Your task to perform on an android device: Show me popular games on the Play Store Image 0: 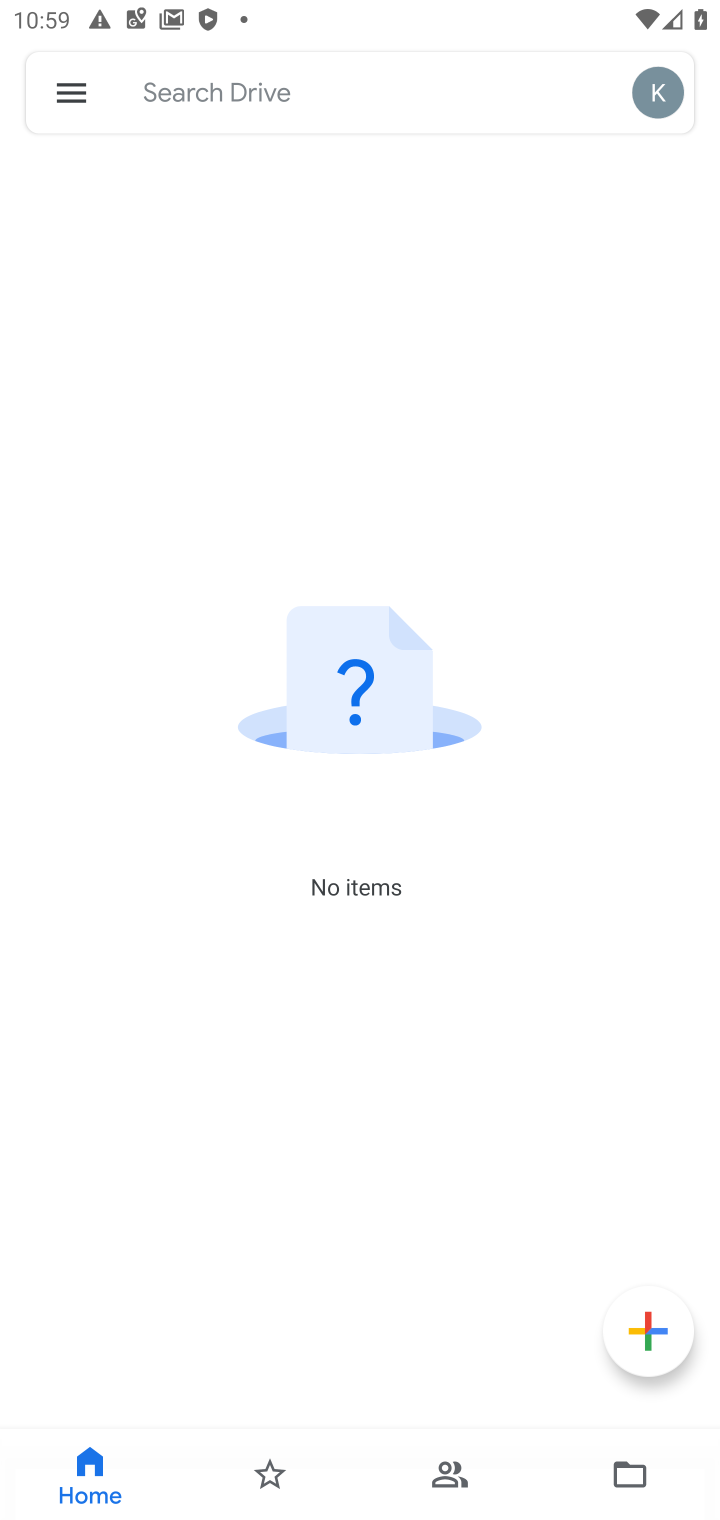
Step 0: press home button
Your task to perform on an android device: Show me popular games on the Play Store Image 1: 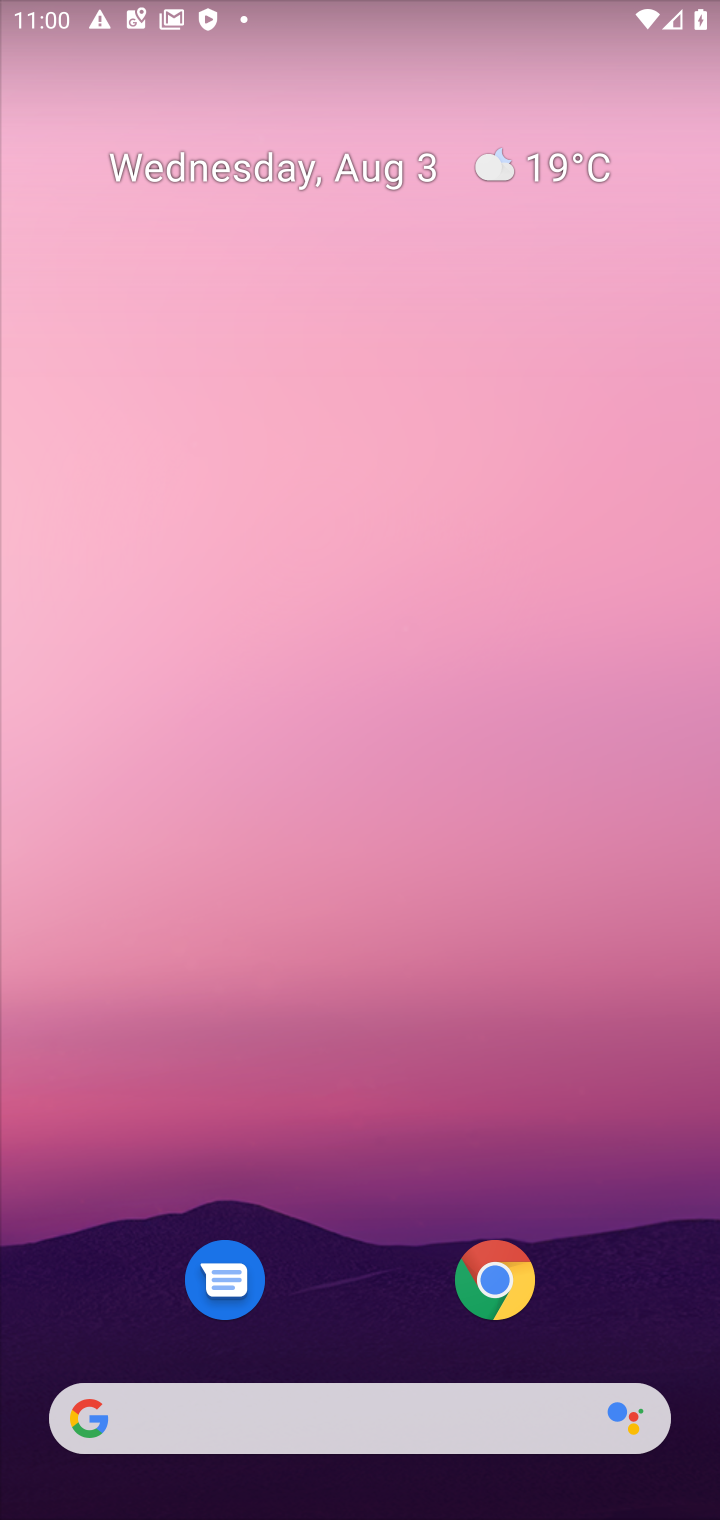
Step 1: drag from (345, 1155) to (384, 52)
Your task to perform on an android device: Show me popular games on the Play Store Image 2: 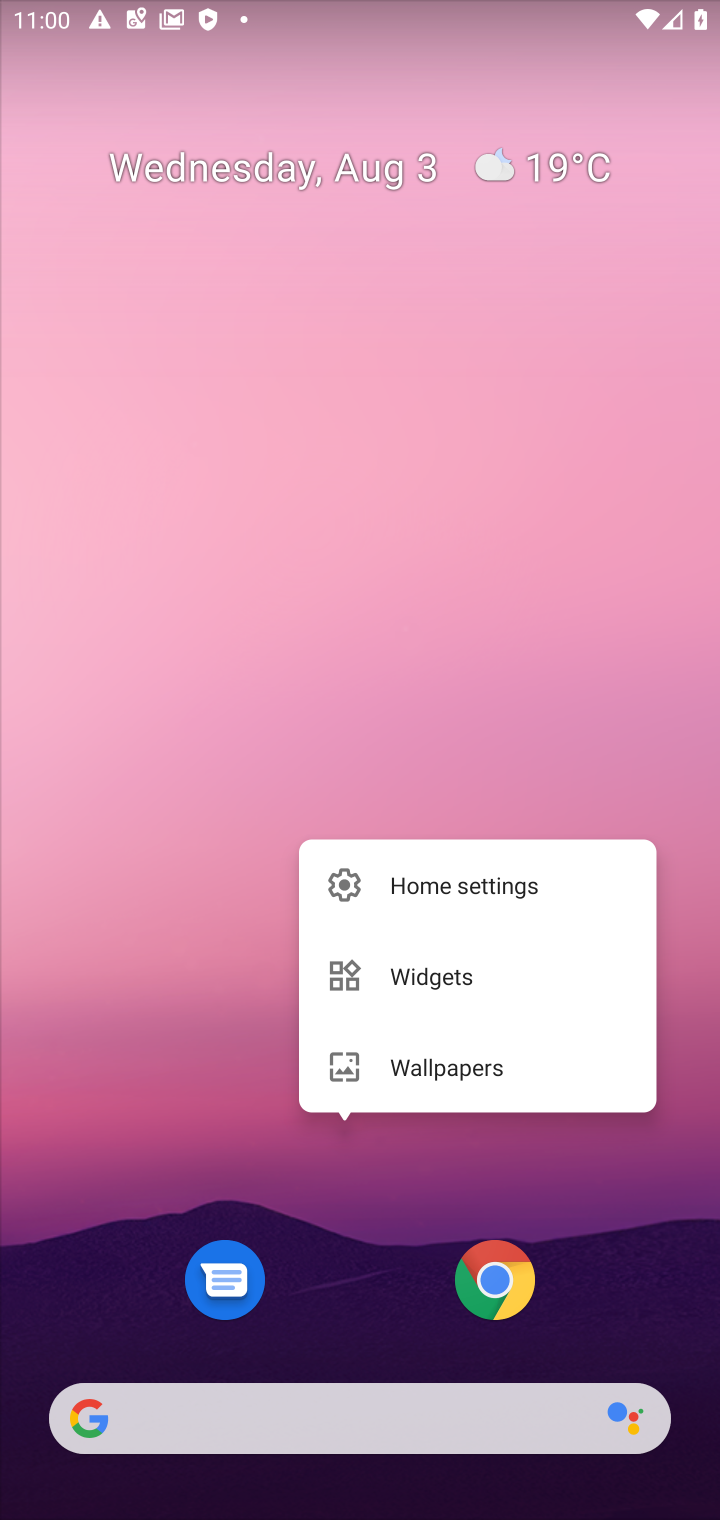
Step 2: click (229, 450)
Your task to perform on an android device: Show me popular games on the Play Store Image 3: 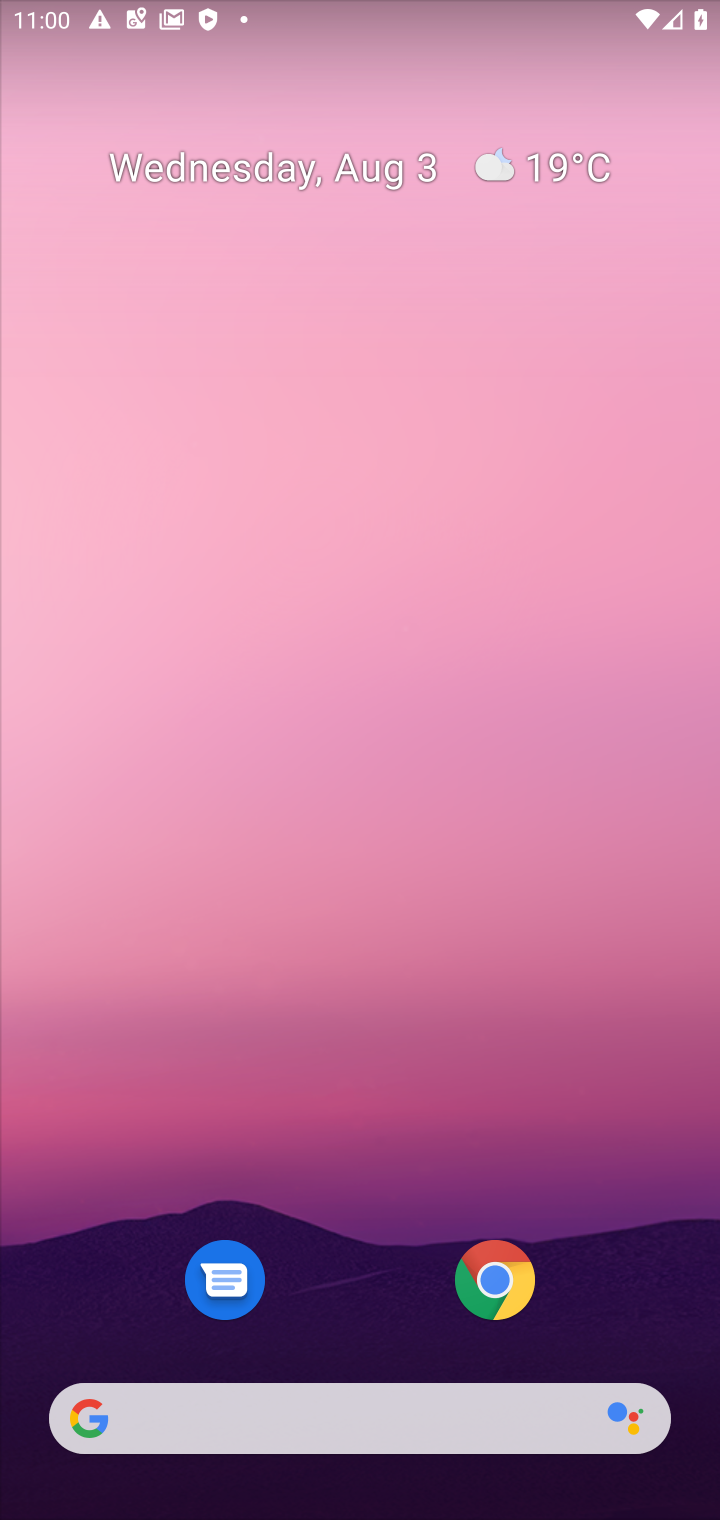
Step 3: drag from (376, 1181) to (416, 292)
Your task to perform on an android device: Show me popular games on the Play Store Image 4: 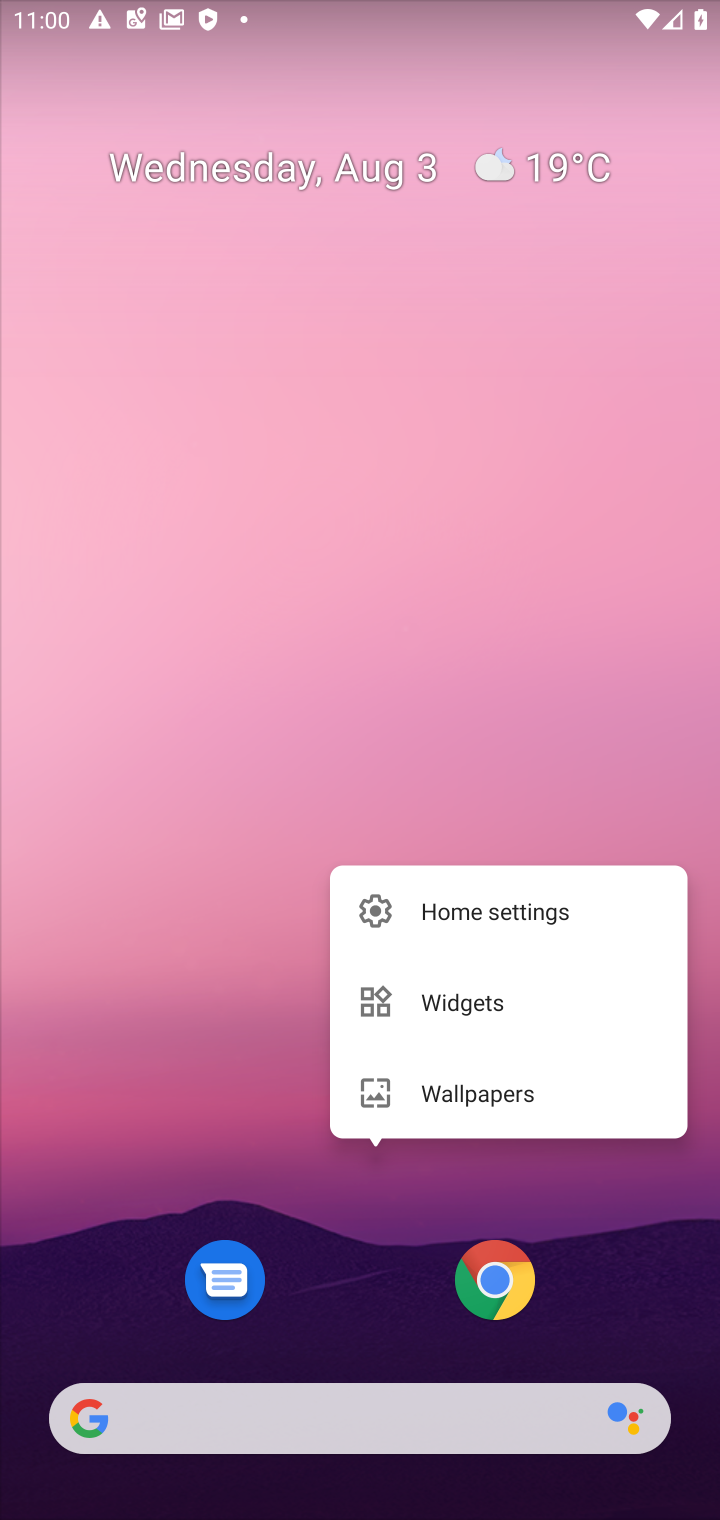
Step 4: click (387, 569)
Your task to perform on an android device: Show me popular games on the Play Store Image 5: 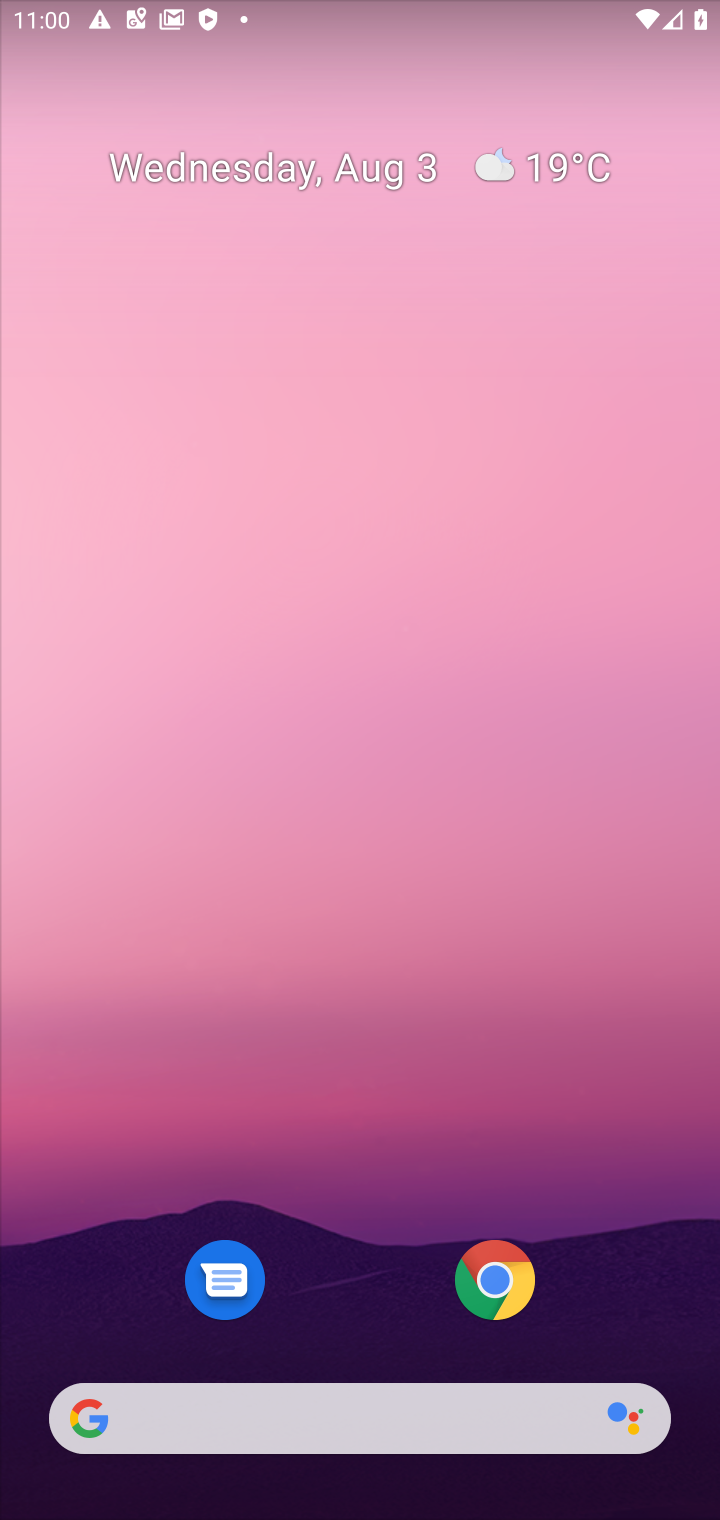
Step 5: click (387, 569)
Your task to perform on an android device: Show me popular games on the Play Store Image 6: 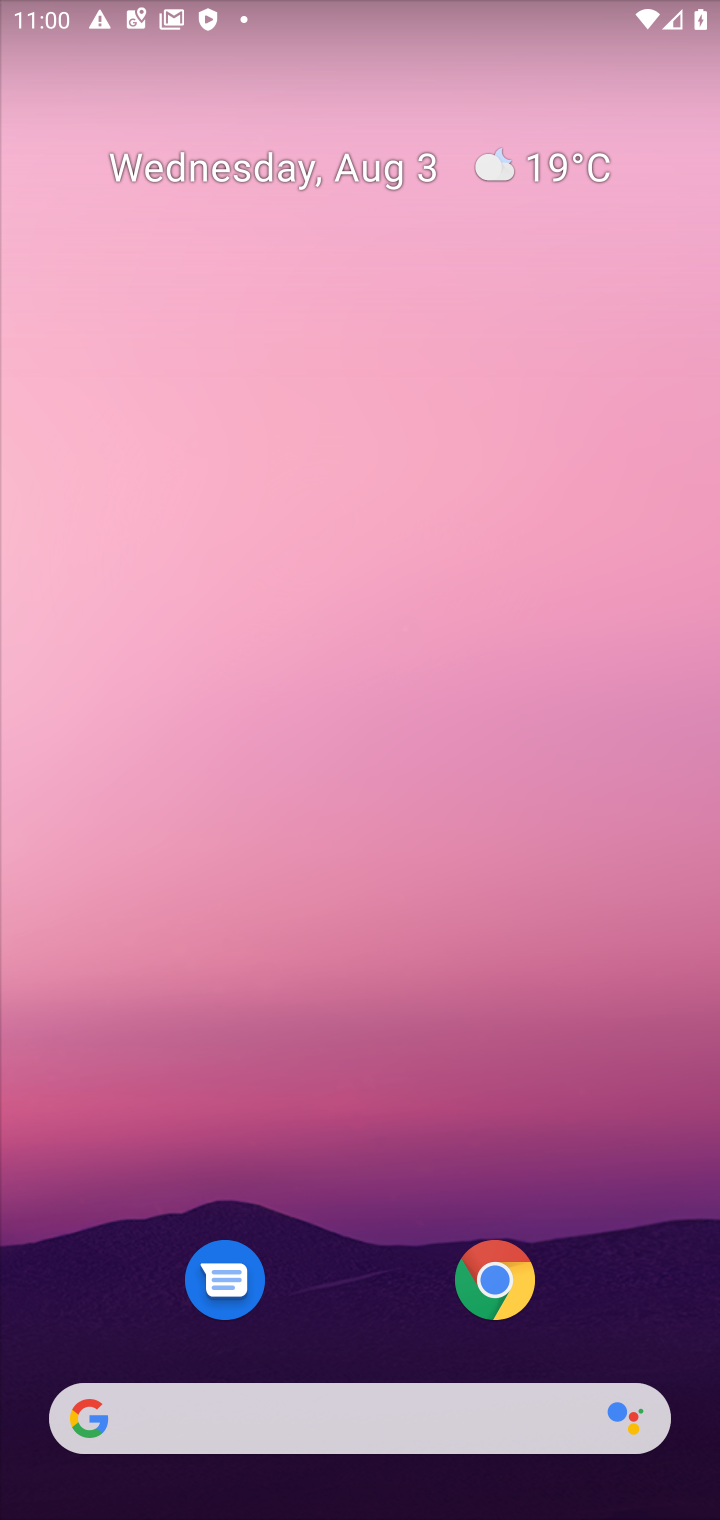
Step 6: drag from (407, 1077) to (362, 66)
Your task to perform on an android device: Show me popular games on the Play Store Image 7: 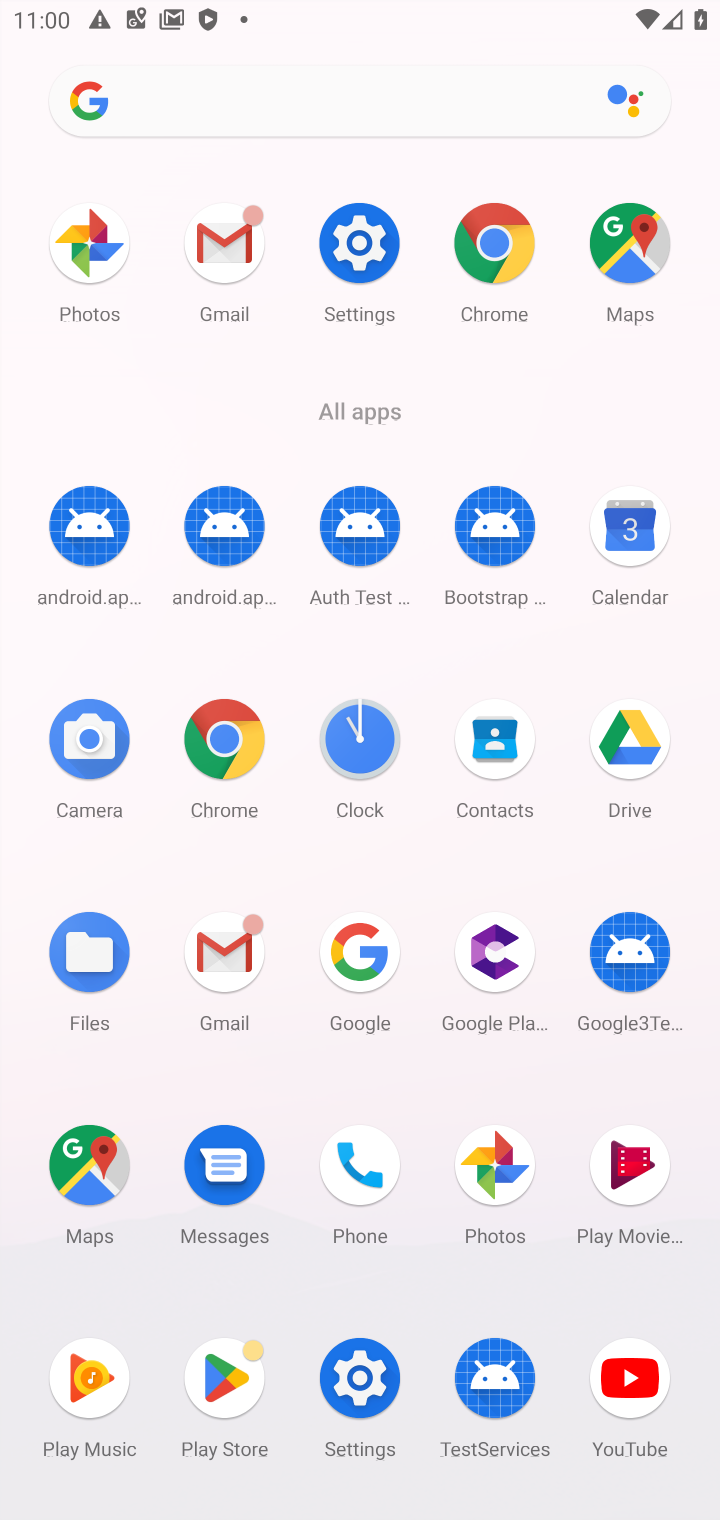
Step 7: click (221, 1365)
Your task to perform on an android device: Show me popular games on the Play Store Image 8: 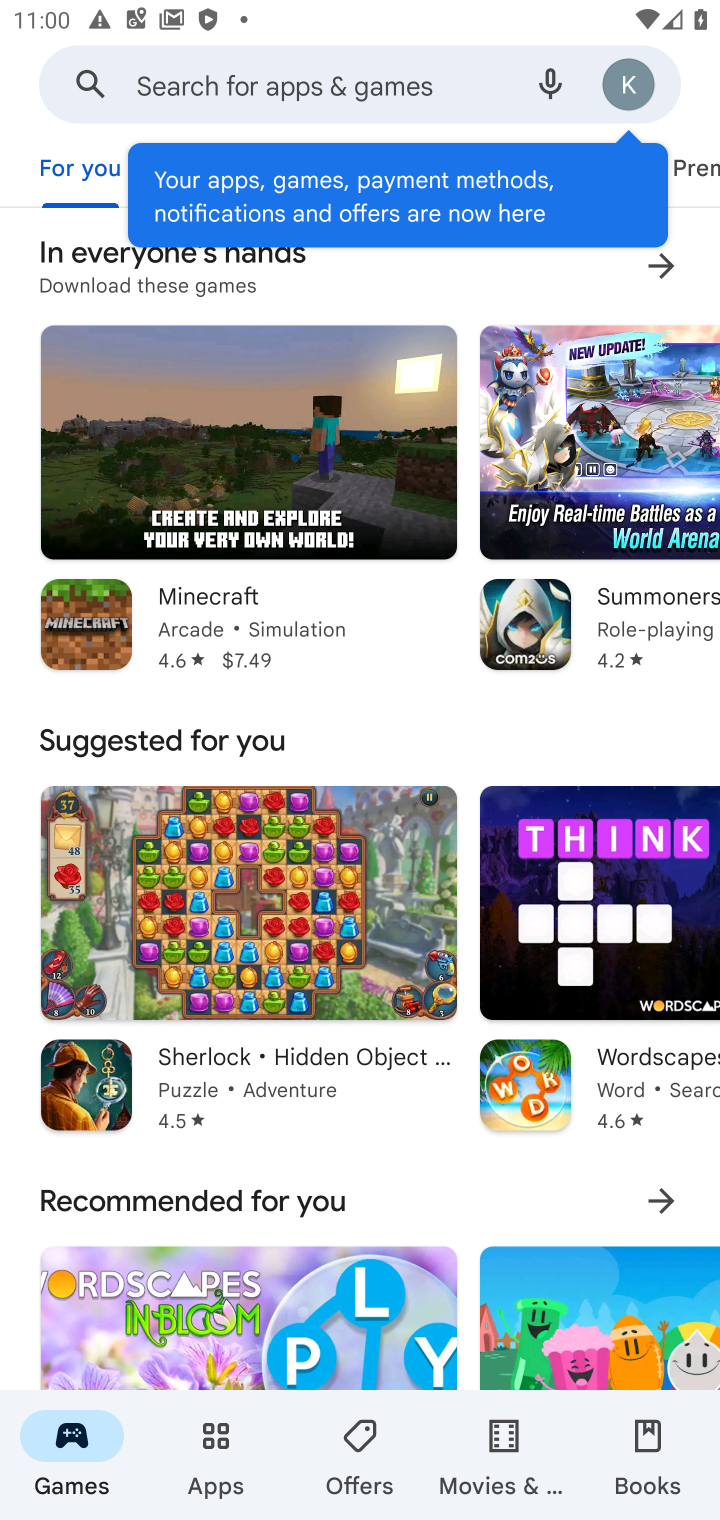
Step 8: task complete